Your task to perform on an android device: Play the latest video from the Huffington Post Image 0: 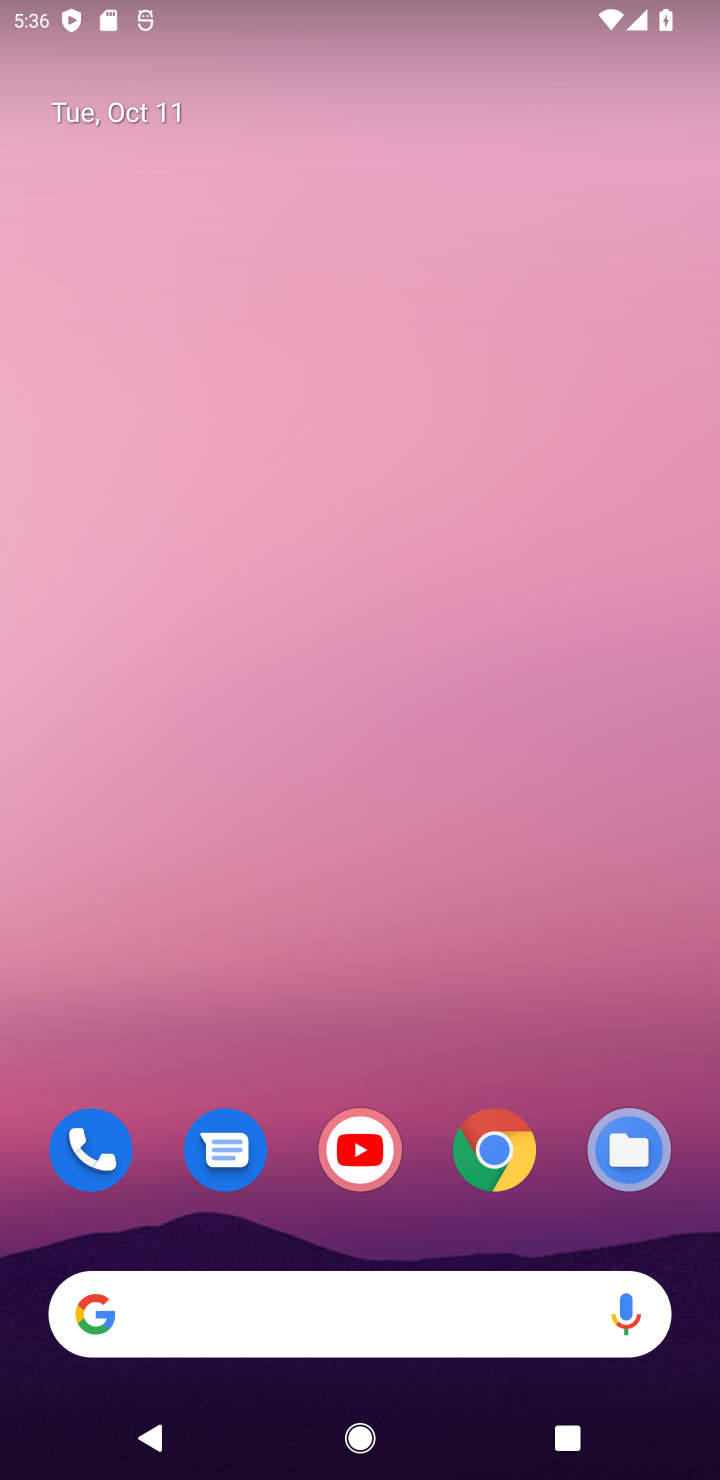
Step 0: click (368, 1164)
Your task to perform on an android device: Play the latest video from the Huffington Post Image 1: 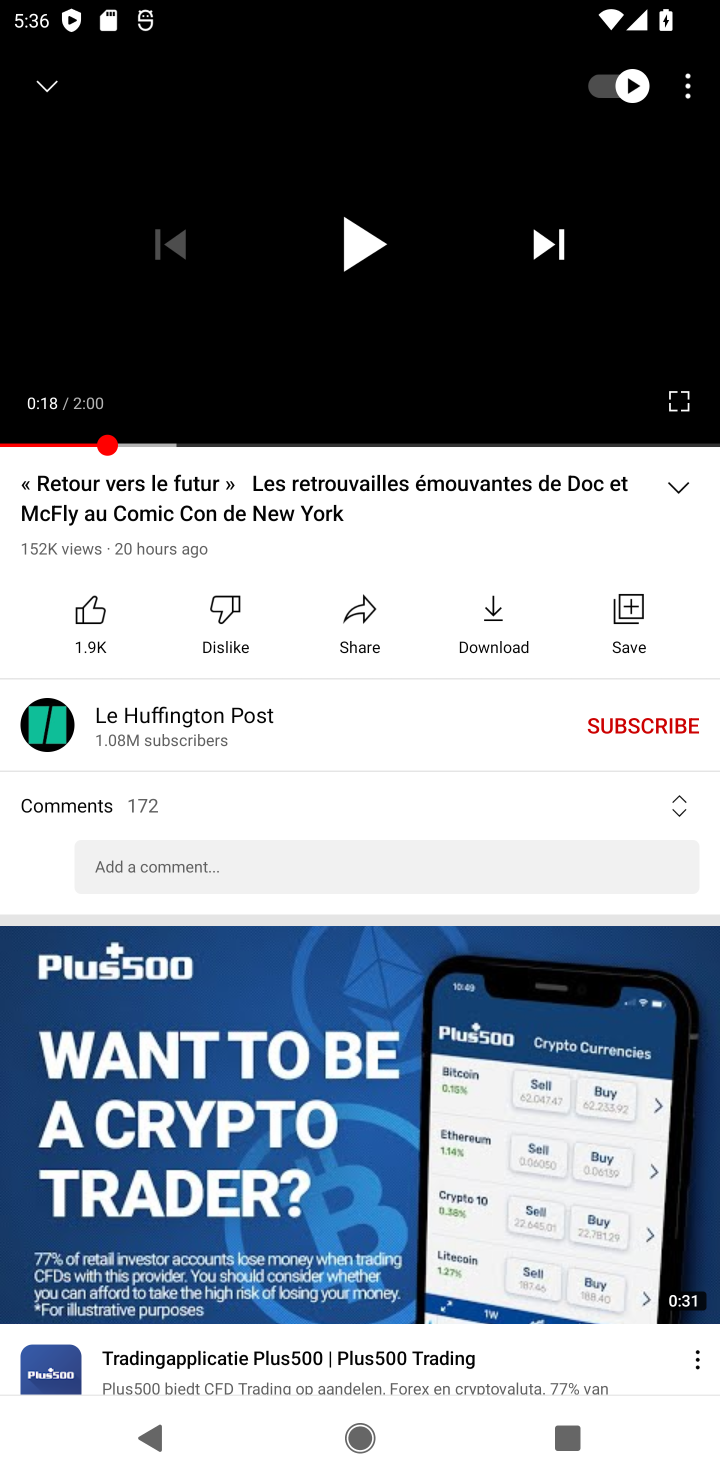
Step 1: click (38, 93)
Your task to perform on an android device: Play the latest video from the Huffington Post Image 2: 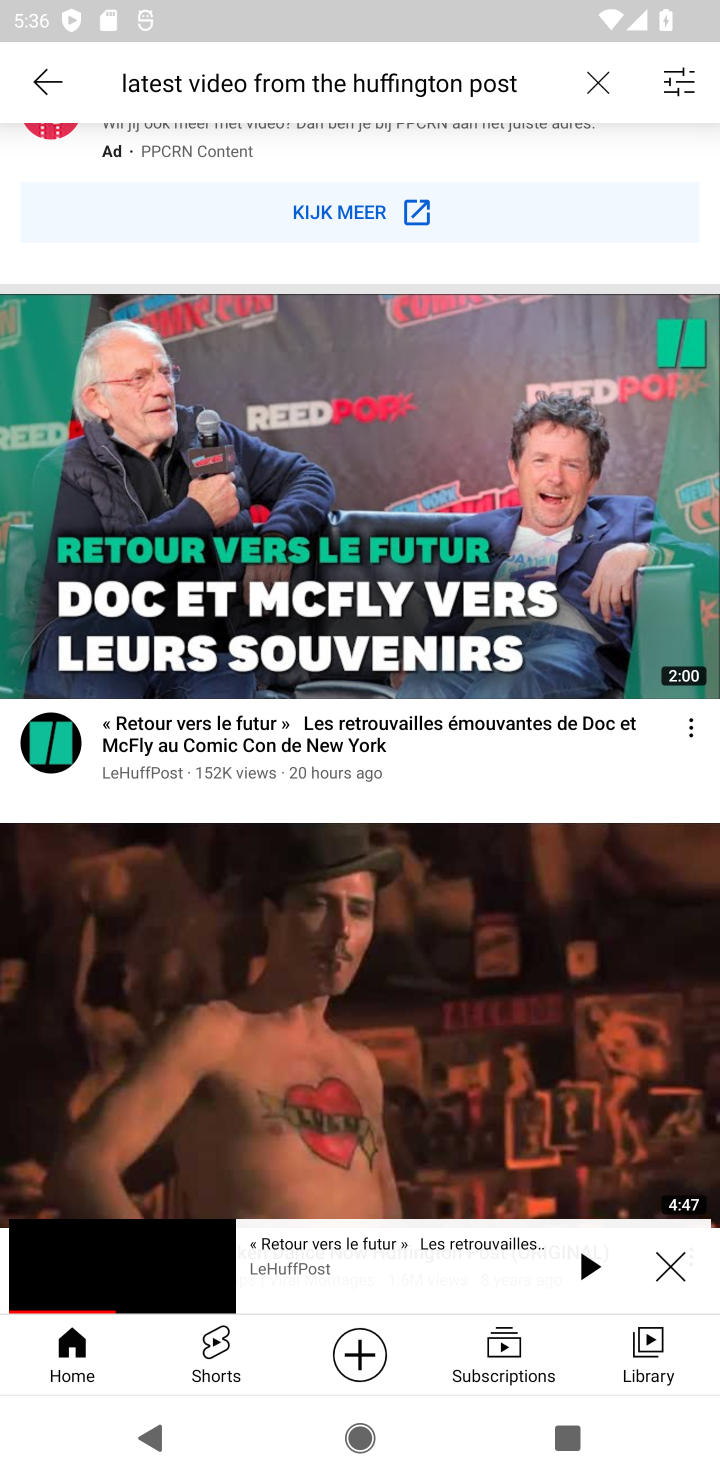
Step 2: click (591, 85)
Your task to perform on an android device: Play the latest video from the Huffington Post Image 3: 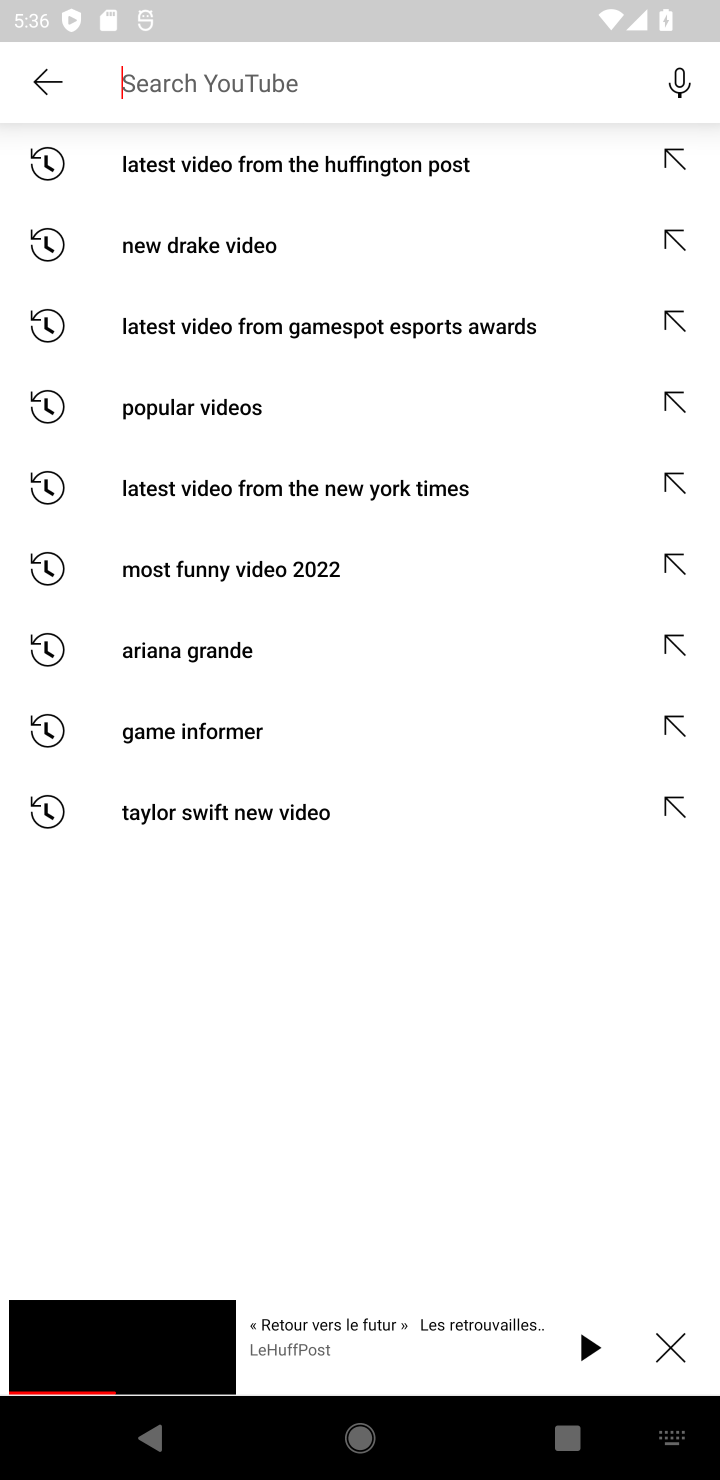
Step 3: click (249, 86)
Your task to perform on an android device: Play the latest video from the Huffington Post Image 4: 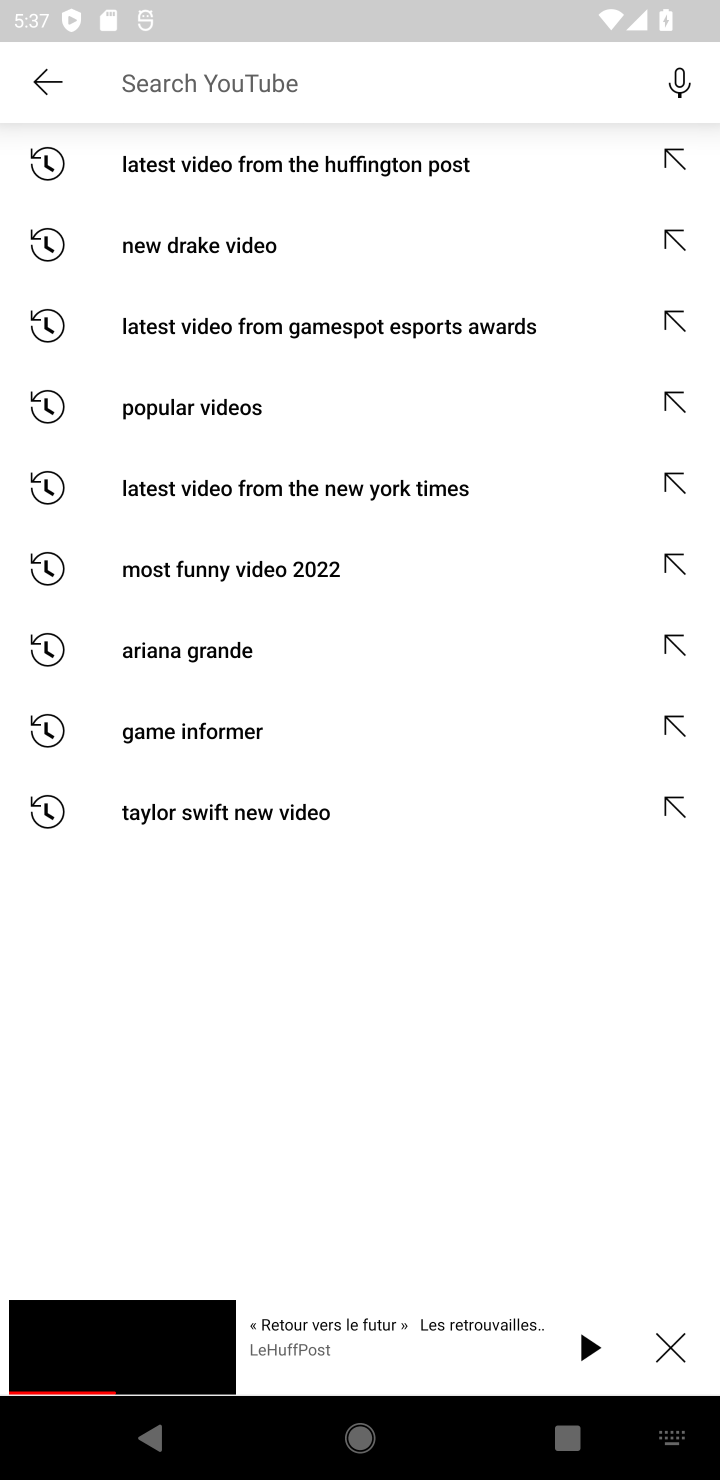
Step 4: type "latest video from the Huffington Post"
Your task to perform on an android device: Play the latest video from the Huffington Post Image 5: 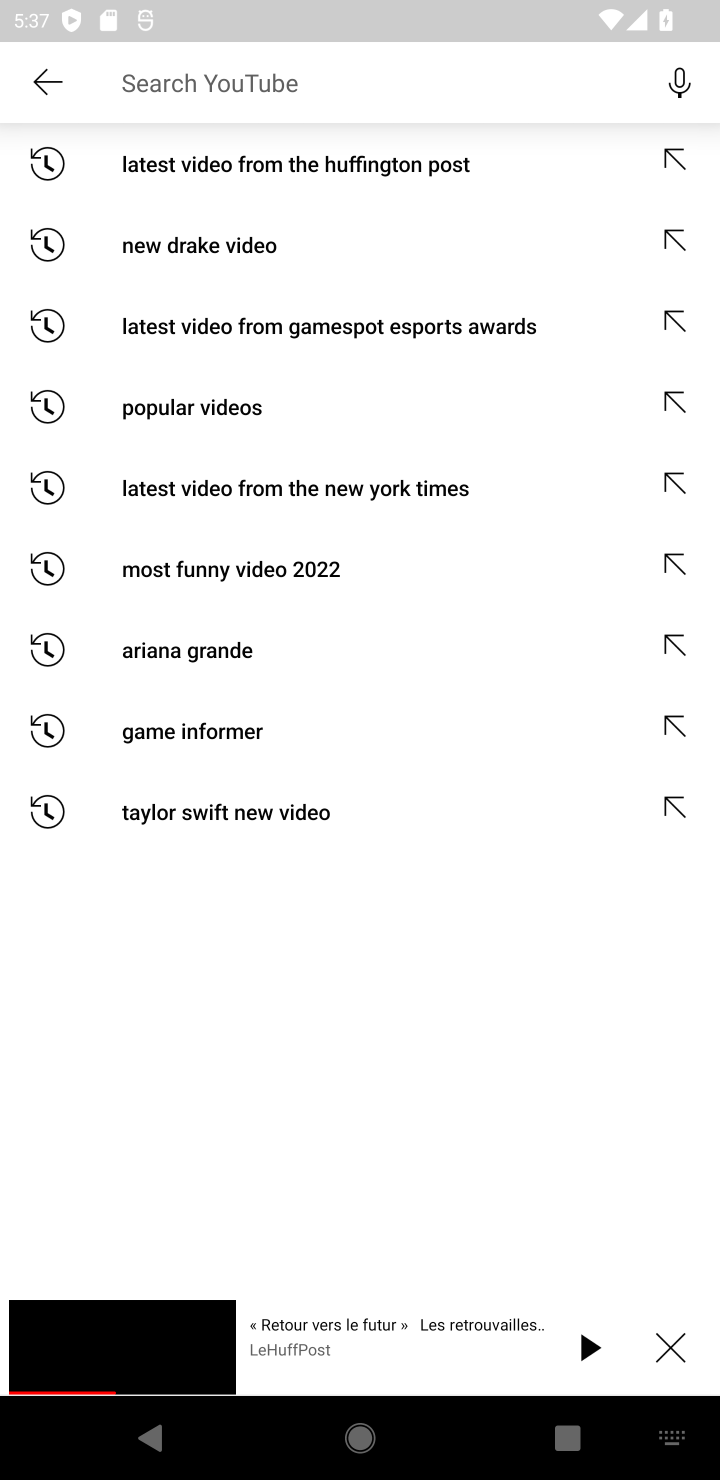
Step 5: click (191, 172)
Your task to perform on an android device: Play the latest video from the Huffington Post Image 6: 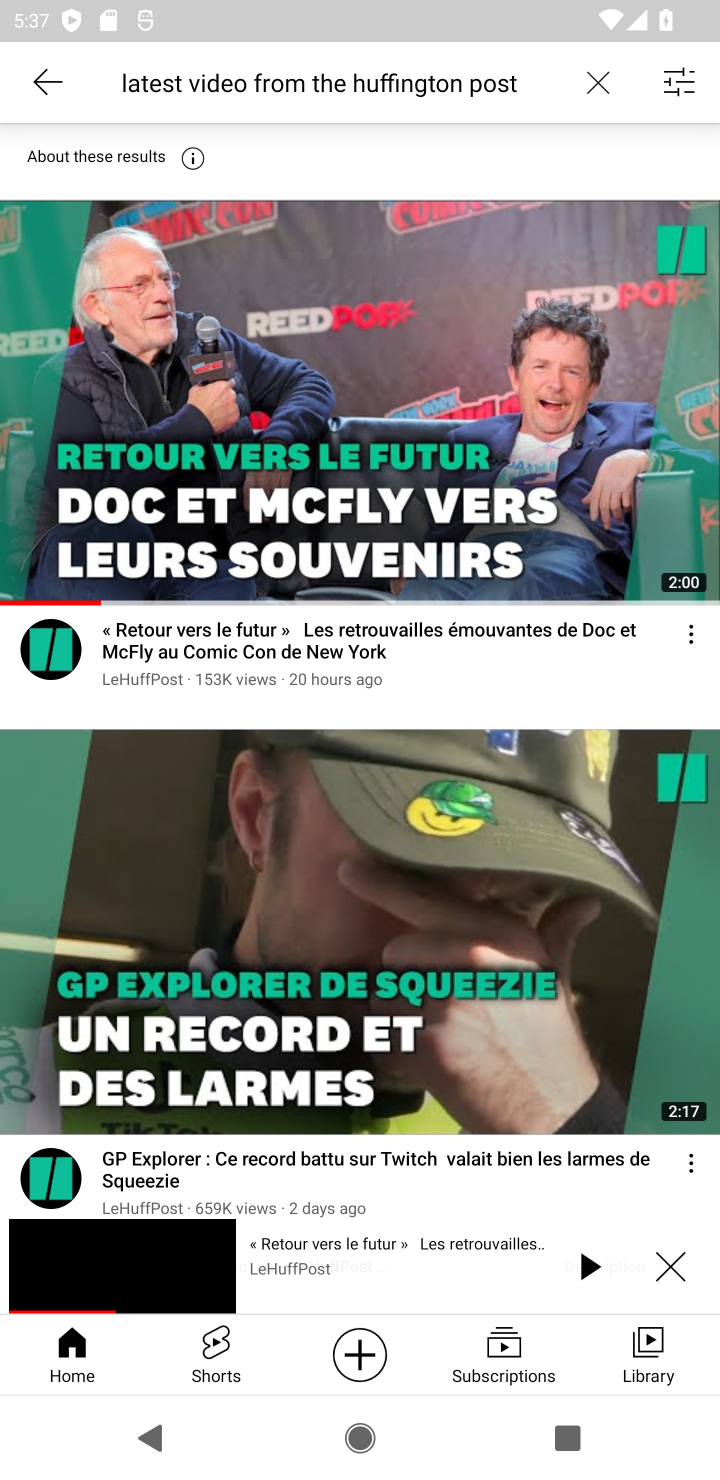
Step 6: click (214, 464)
Your task to perform on an android device: Play the latest video from the Huffington Post Image 7: 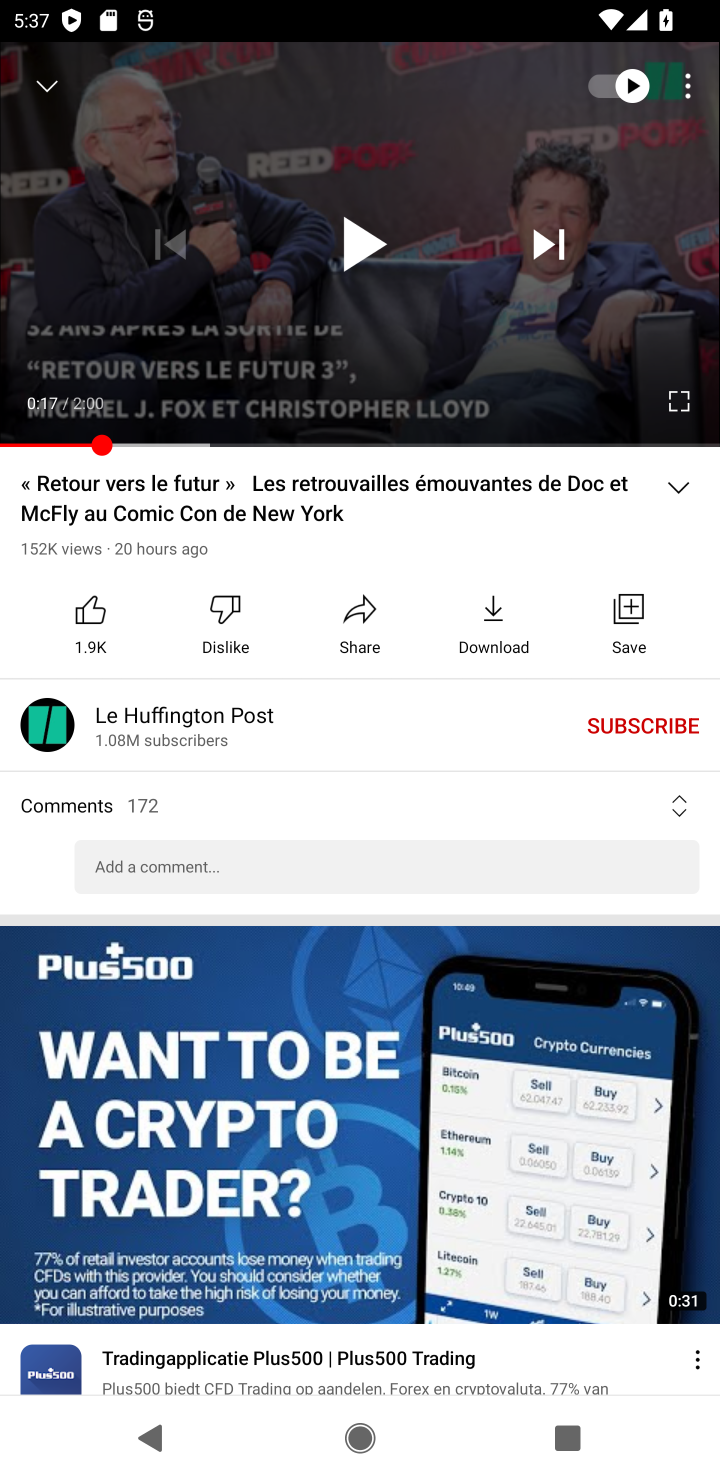
Step 7: click (349, 249)
Your task to perform on an android device: Play the latest video from the Huffington Post Image 8: 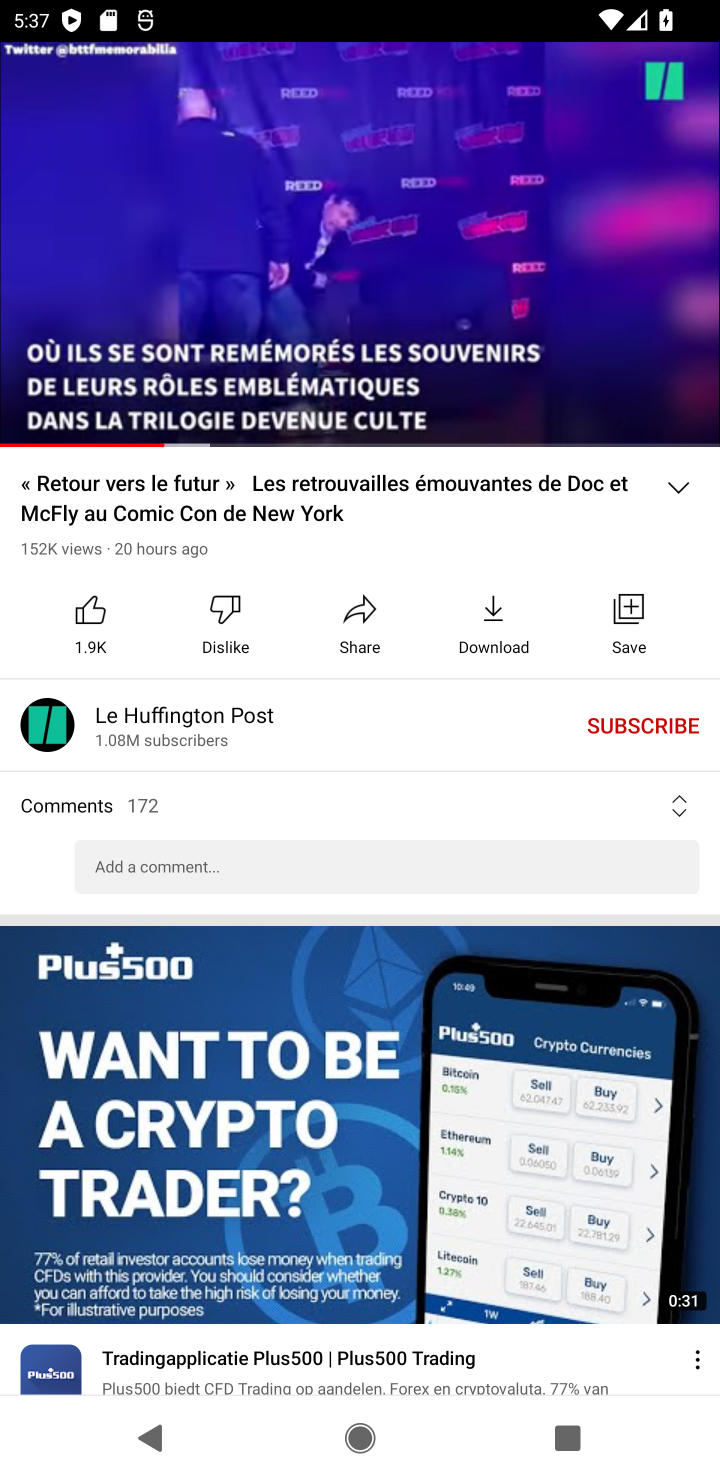
Step 8: click (373, 238)
Your task to perform on an android device: Play the latest video from the Huffington Post Image 9: 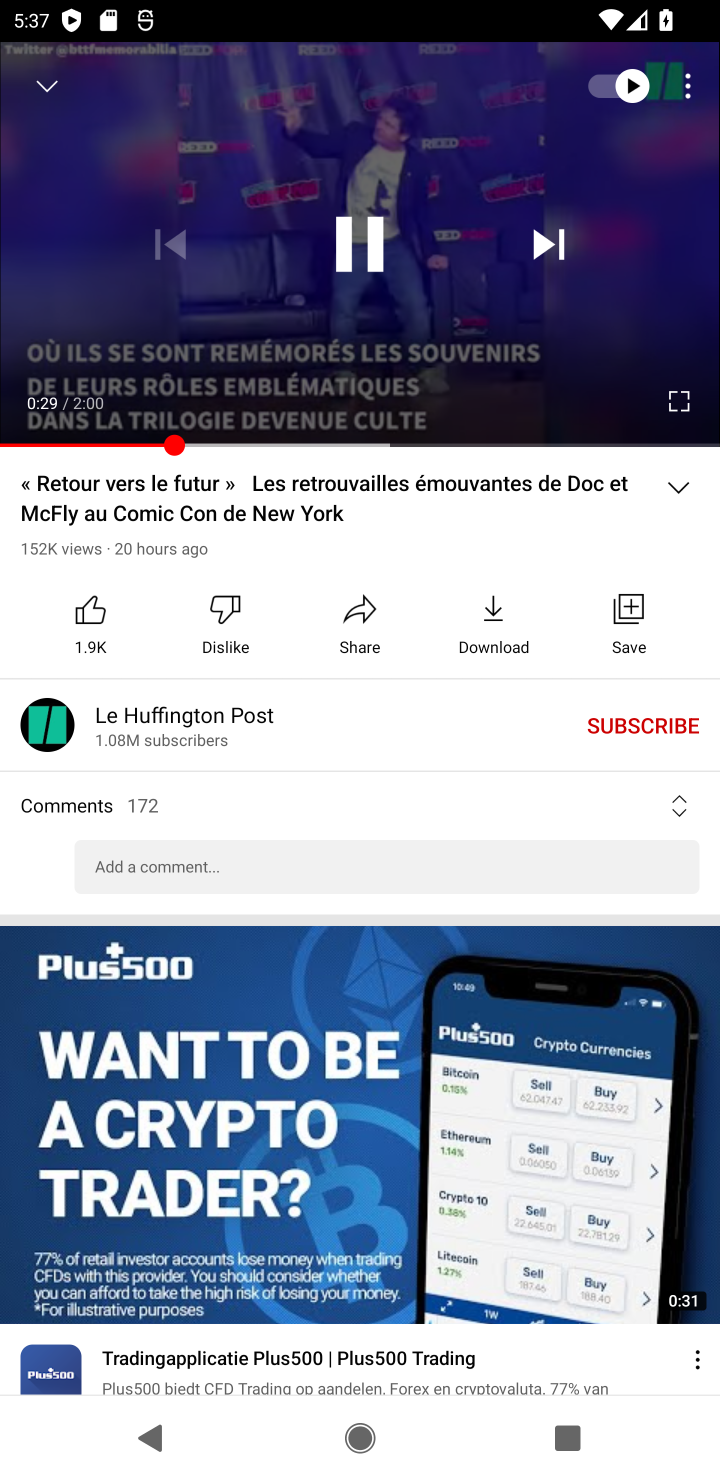
Step 9: click (362, 236)
Your task to perform on an android device: Play the latest video from the Huffington Post Image 10: 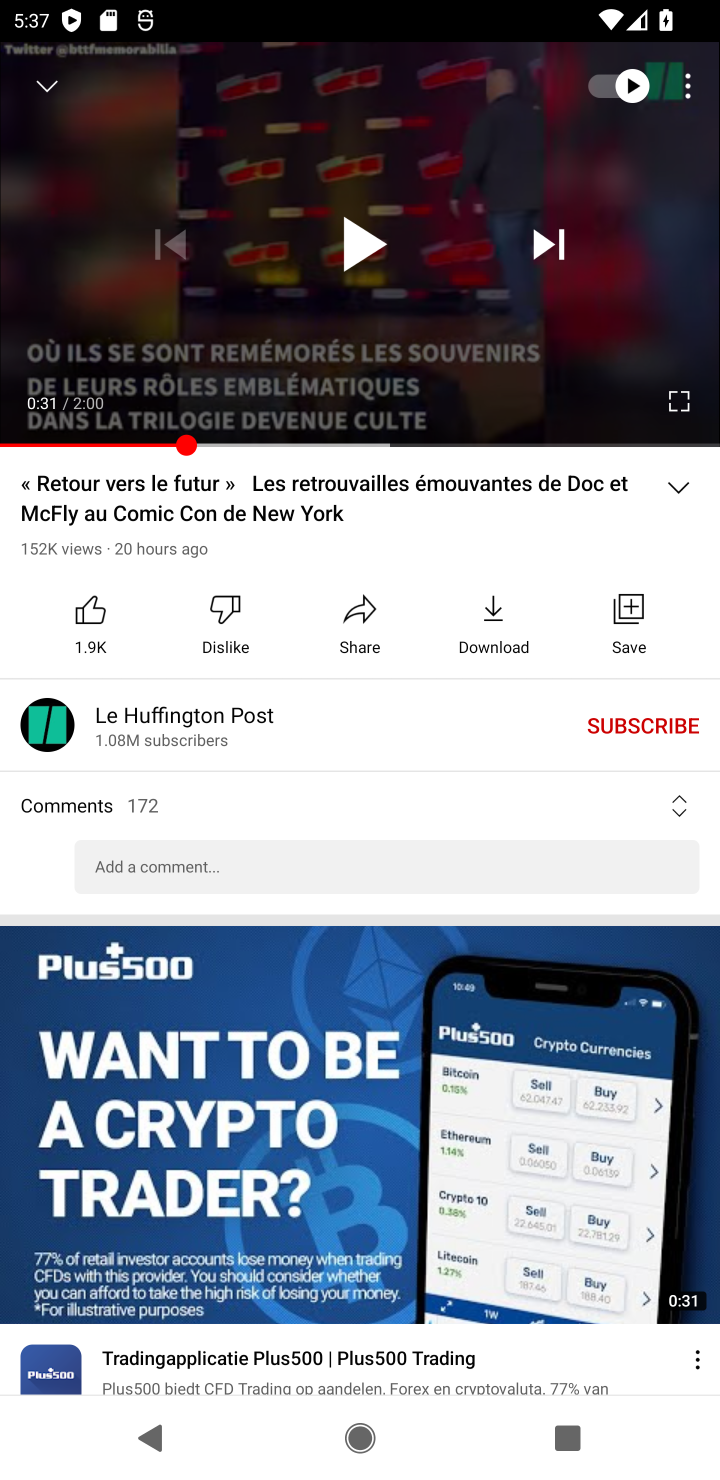
Step 10: task complete